Your task to perform on an android device: Search for pizza restaurants on Maps Image 0: 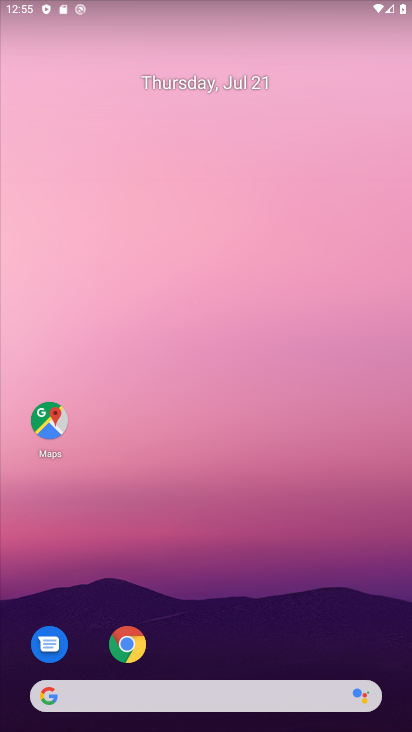
Step 0: click (52, 405)
Your task to perform on an android device: Search for pizza restaurants on Maps Image 1: 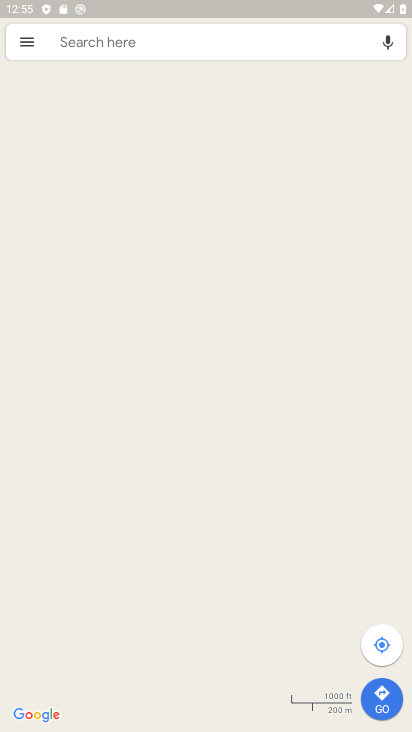
Step 1: click (187, 40)
Your task to perform on an android device: Search for pizza restaurants on Maps Image 2: 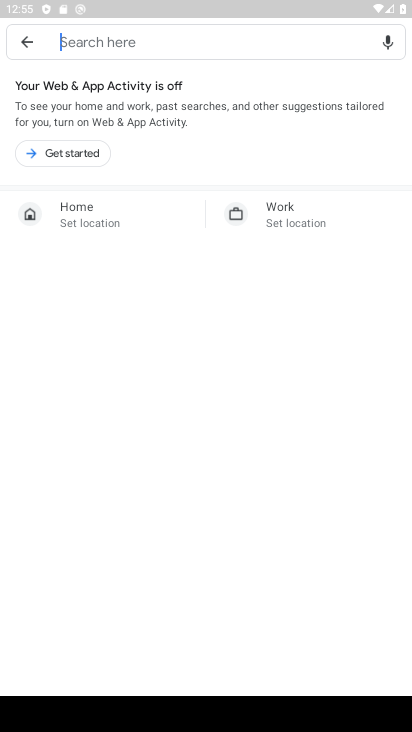
Step 2: click (67, 154)
Your task to perform on an android device: Search for pizza restaurants on Maps Image 3: 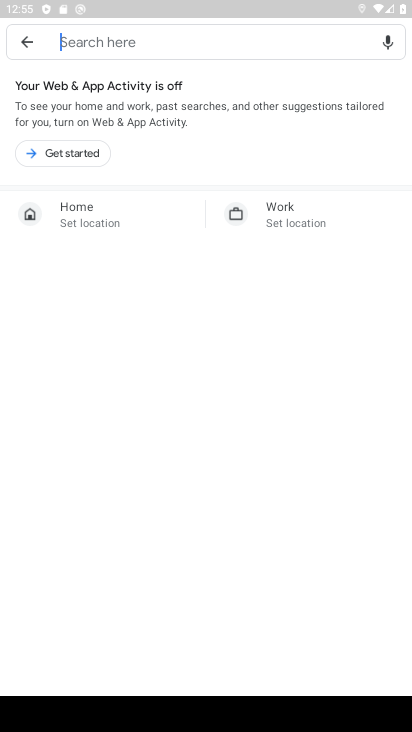
Step 3: click (84, 148)
Your task to perform on an android device: Search for pizza restaurants on Maps Image 4: 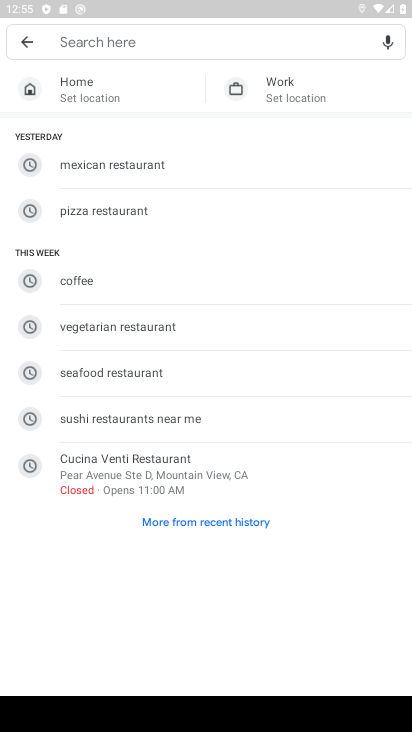
Step 4: click (63, 219)
Your task to perform on an android device: Search for pizza restaurants on Maps Image 5: 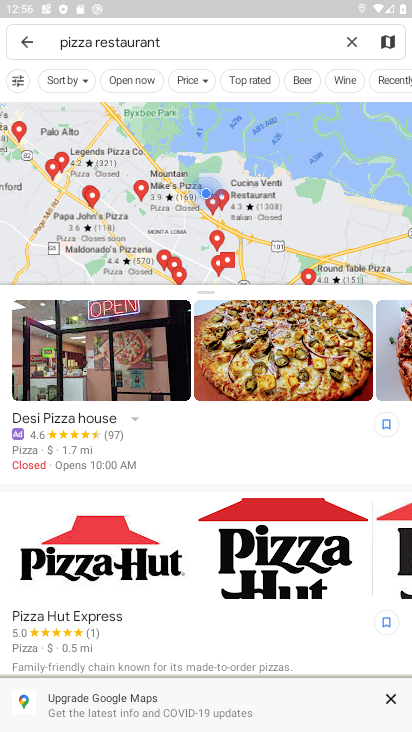
Step 5: task complete